Your task to perform on an android device: Open wifi settings Image 0: 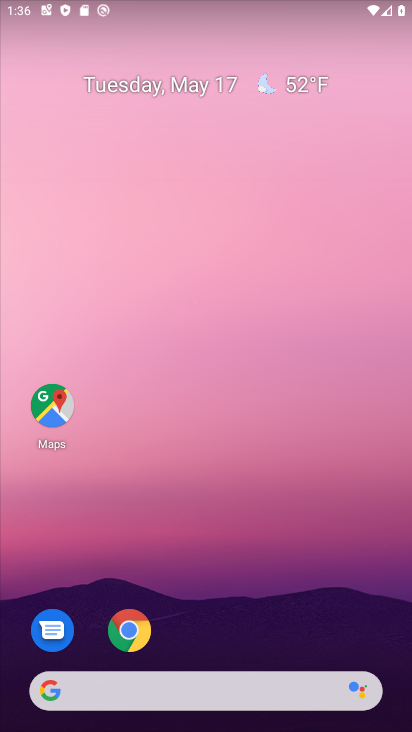
Step 0: drag from (99, 7) to (145, 499)
Your task to perform on an android device: Open wifi settings Image 1: 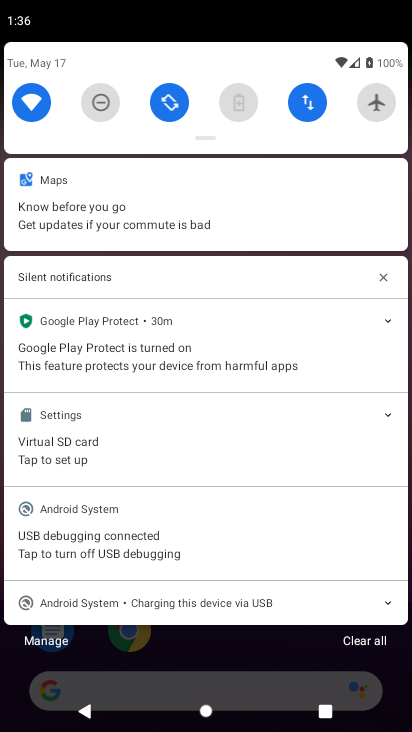
Step 1: click (32, 101)
Your task to perform on an android device: Open wifi settings Image 2: 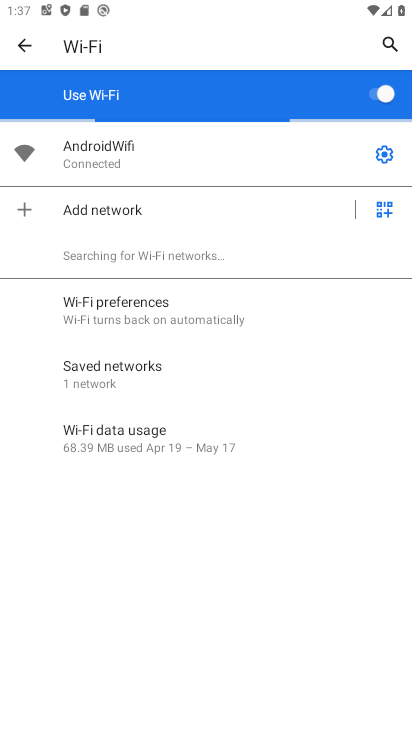
Step 2: task complete